Your task to perform on an android device: Set the phone to "Do not disturb". Image 0: 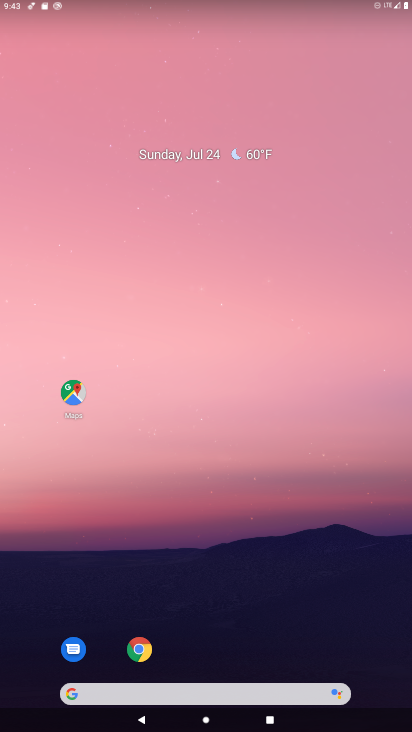
Step 0: drag from (258, 3) to (292, 432)
Your task to perform on an android device: Set the phone to "Do not disturb". Image 1: 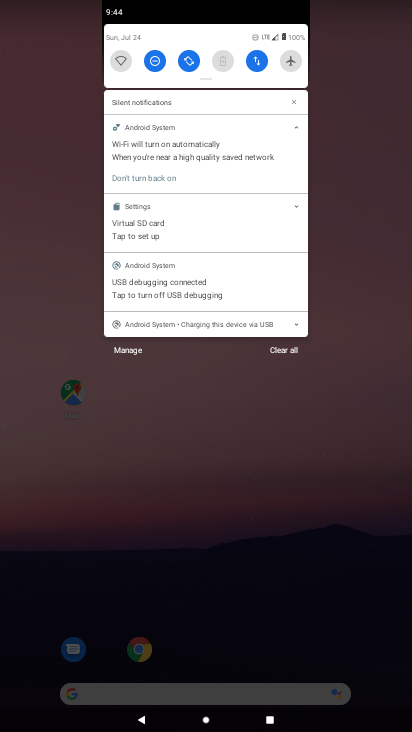
Step 1: task complete